Your task to perform on an android device: check battery use Image 0: 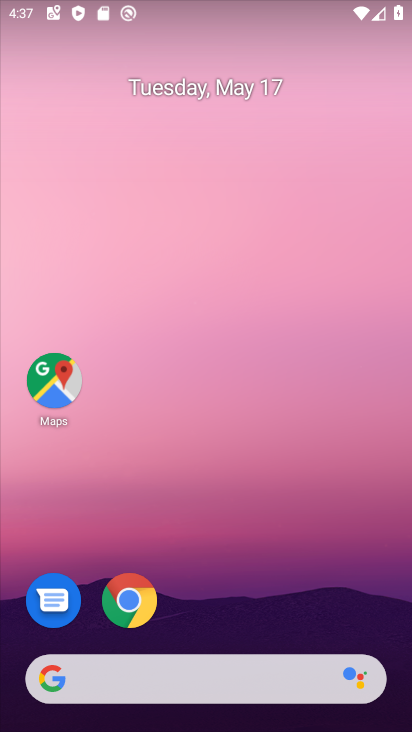
Step 0: drag from (221, 613) to (283, 24)
Your task to perform on an android device: check battery use Image 1: 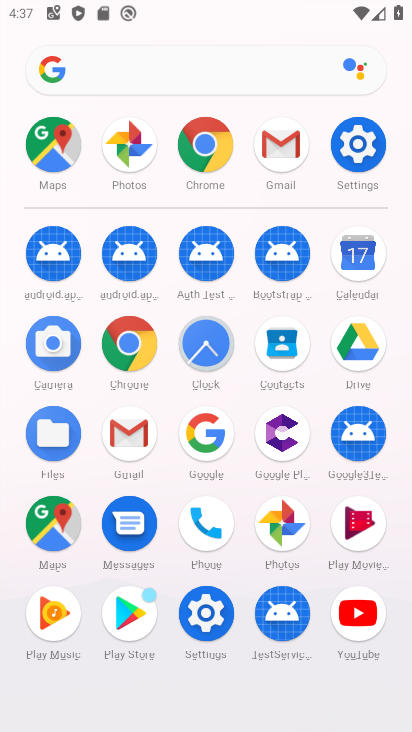
Step 1: click (365, 164)
Your task to perform on an android device: check battery use Image 2: 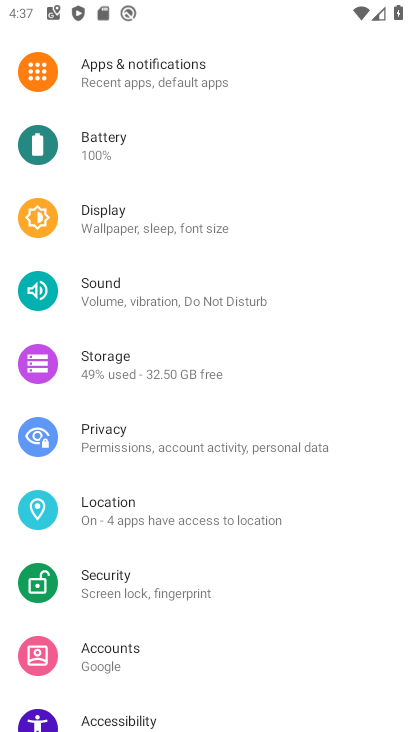
Step 2: click (133, 152)
Your task to perform on an android device: check battery use Image 3: 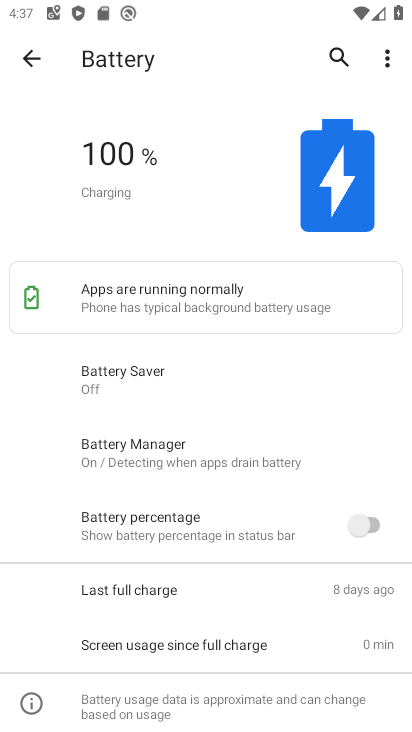
Step 3: drag from (244, 535) to (245, 617)
Your task to perform on an android device: check battery use Image 4: 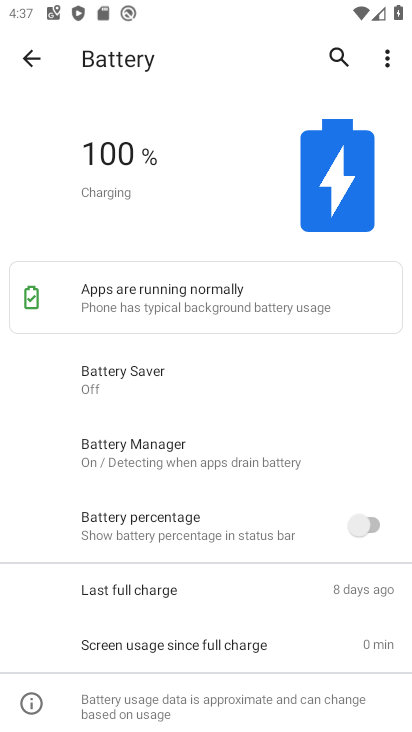
Step 4: click (382, 57)
Your task to perform on an android device: check battery use Image 5: 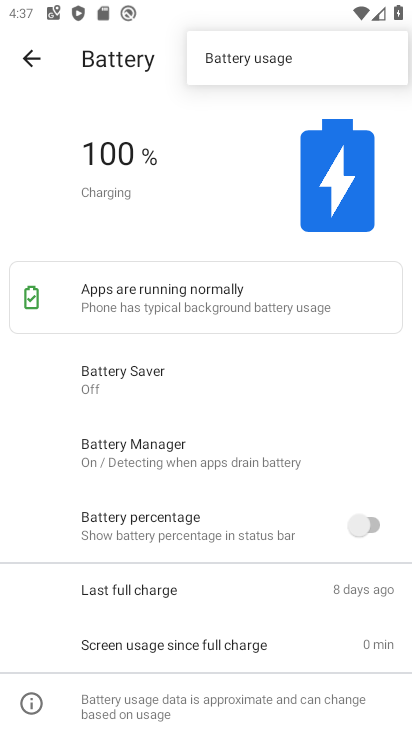
Step 5: click (269, 66)
Your task to perform on an android device: check battery use Image 6: 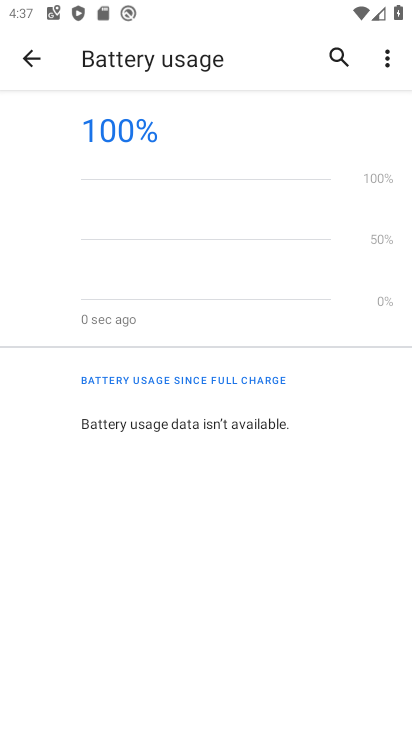
Step 6: task complete